Your task to perform on an android device: Is it going to rain tomorrow? Image 0: 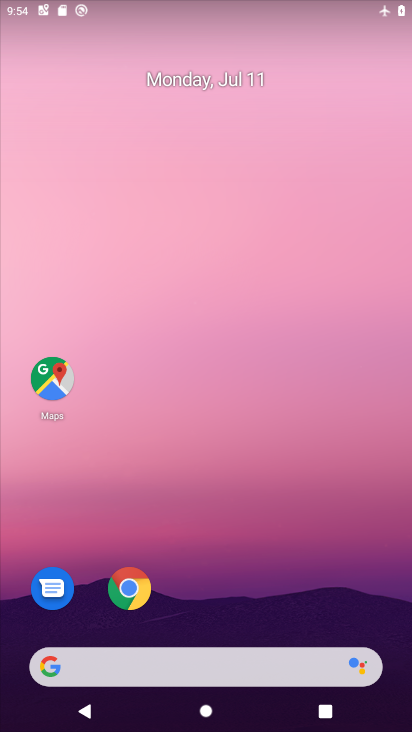
Step 0: drag from (250, 598) to (252, 389)
Your task to perform on an android device: Is it going to rain tomorrow? Image 1: 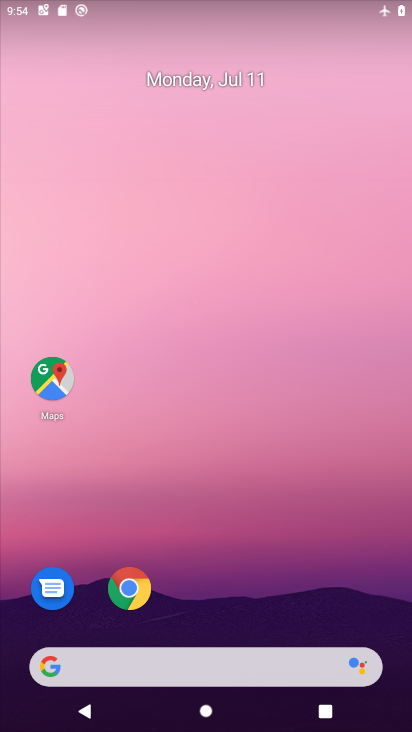
Step 1: click (125, 577)
Your task to perform on an android device: Is it going to rain tomorrow? Image 2: 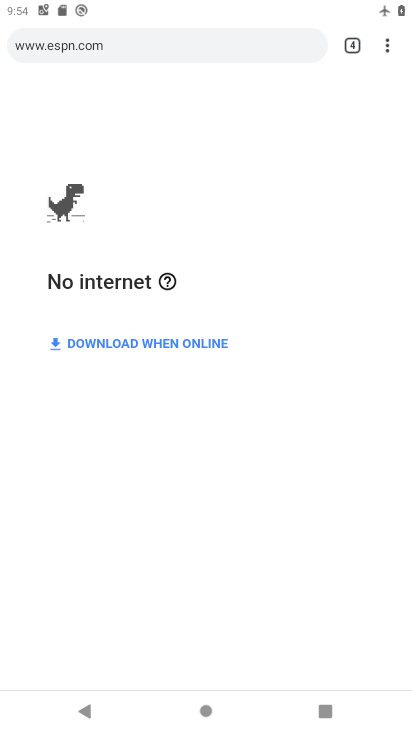
Step 2: click (381, 42)
Your task to perform on an android device: Is it going to rain tomorrow? Image 3: 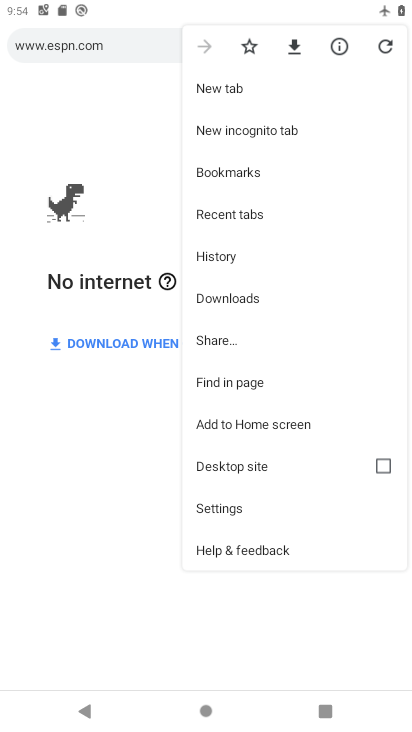
Step 3: click (237, 81)
Your task to perform on an android device: Is it going to rain tomorrow? Image 4: 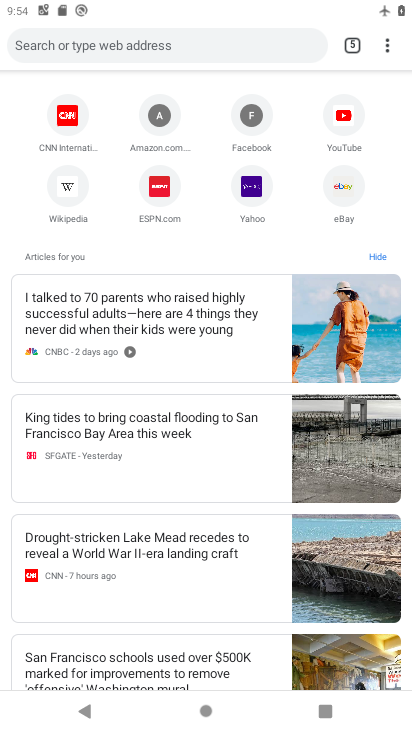
Step 4: click (220, 34)
Your task to perform on an android device: Is it going to rain tomorrow? Image 5: 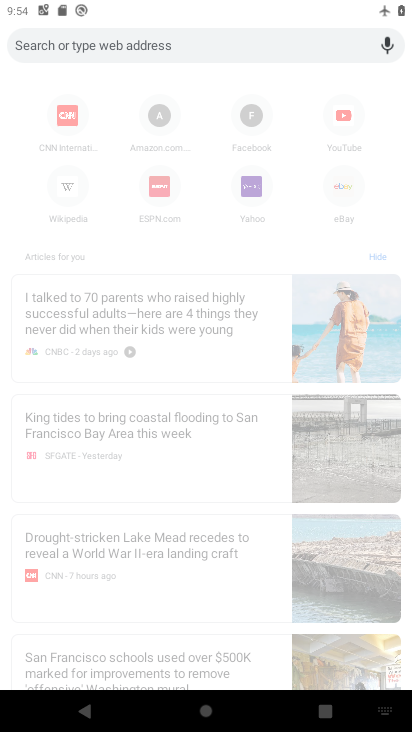
Step 5: type "Is it going to rain tomorrow "
Your task to perform on an android device: Is it going to rain tomorrow? Image 6: 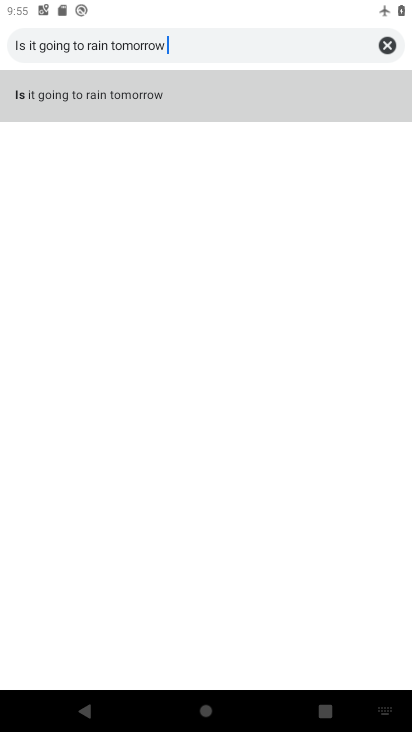
Step 6: click (143, 100)
Your task to perform on an android device: Is it going to rain tomorrow? Image 7: 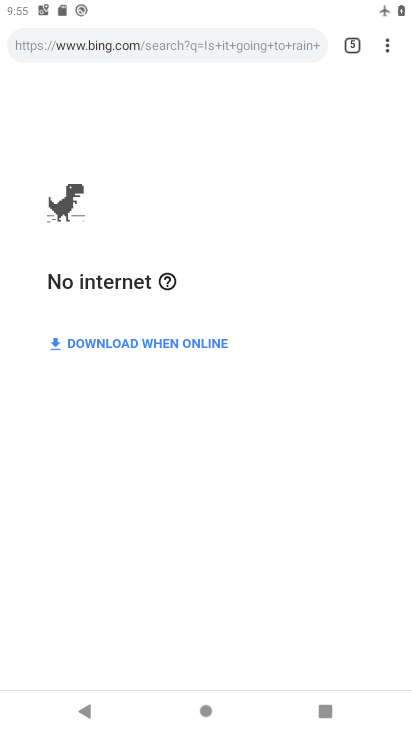
Step 7: task complete